Your task to perform on an android device: make emails show in primary in the gmail app Image 0: 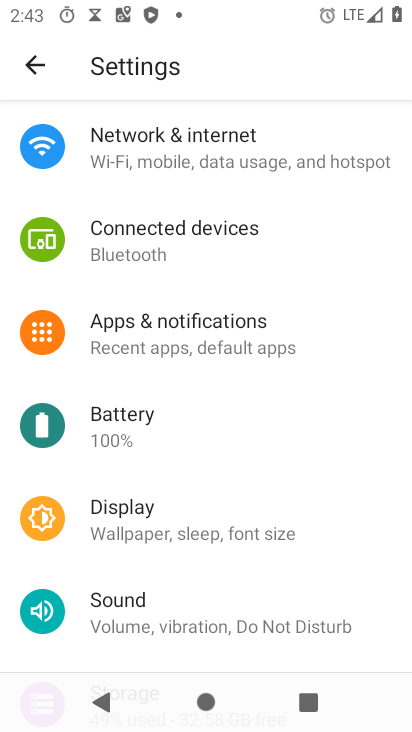
Step 0: press back button
Your task to perform on an android device: make emails show in primary in the gmail app Image 1: 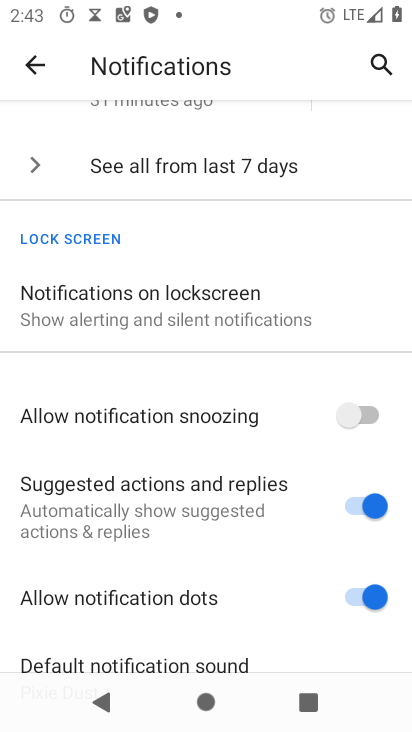
Step 1: press back button
Your task to perform on an android device: make emails show in primary in the gmail app Image 2: 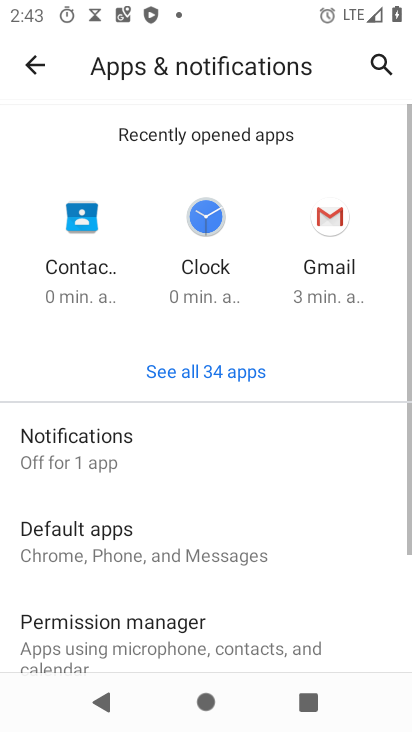
Step 2: press back button
Your task to perform on an android device: make emails show in primary in the gmail app Image 3: 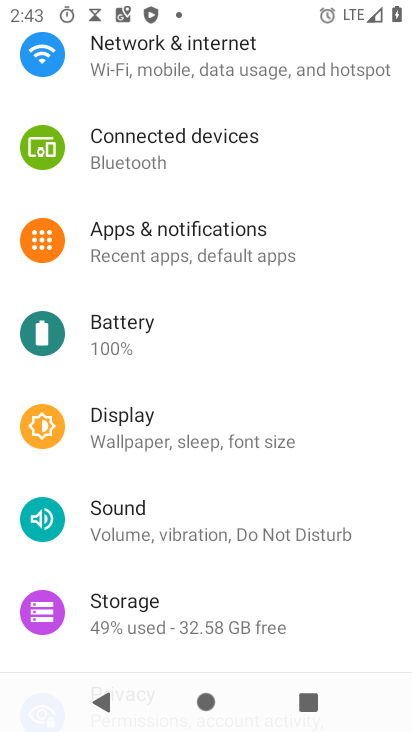
Step 3: press back button
Your task to perform on an android device: make emails show in primary in the gmail app Image 4: 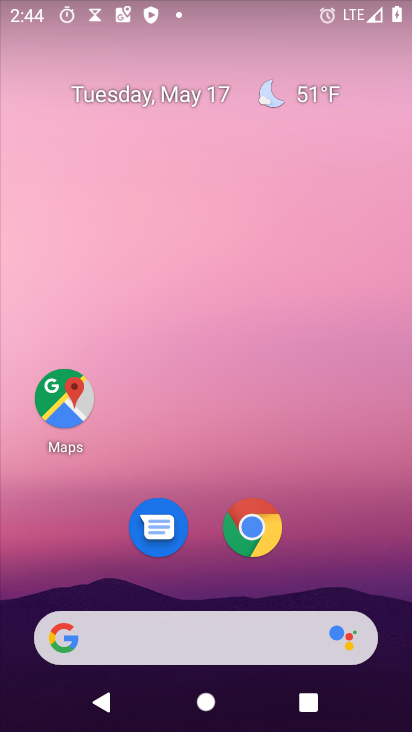
Step 4: drag from (346, 541) to (219, 125)
Your task to perform on an android device: make emails show in primary in the gmail app Image 5: 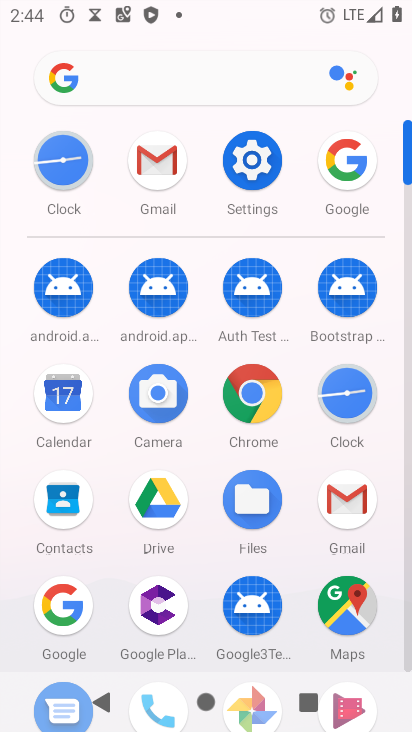
Step 5: click (156, 159)
Your task to perform on an android device: make emails show in primary in the gmail app Image 6: 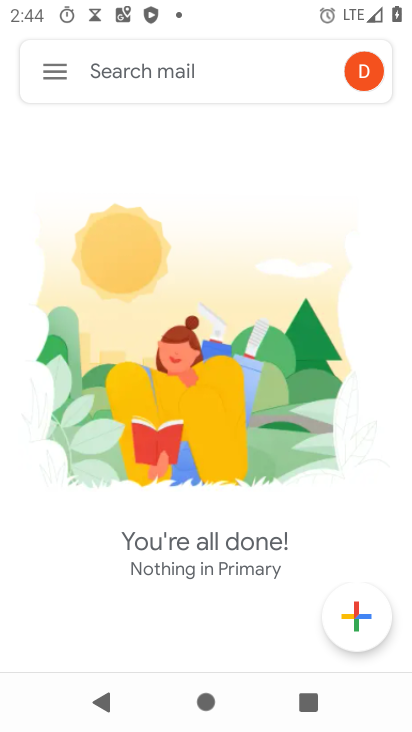
Step 6: click (61, 70)
Your task to perform on an android device: make emails show in primary in the gmail app Image 7: 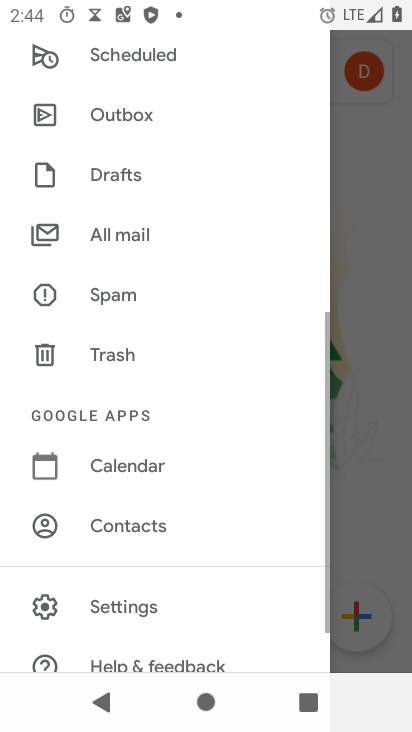
Step 7: drag from (135, 166) to (139, 376)
Your task to perform on an android device: make emails show in primary in the gmail app Image 8: 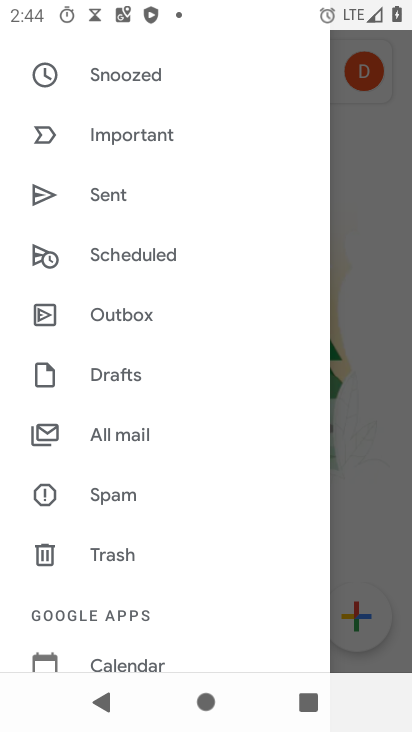
Step 8: drag from (159, 172) to (173, 414)
Your task to perform on an android device: make emails show in primary in the gmail app Image 9: 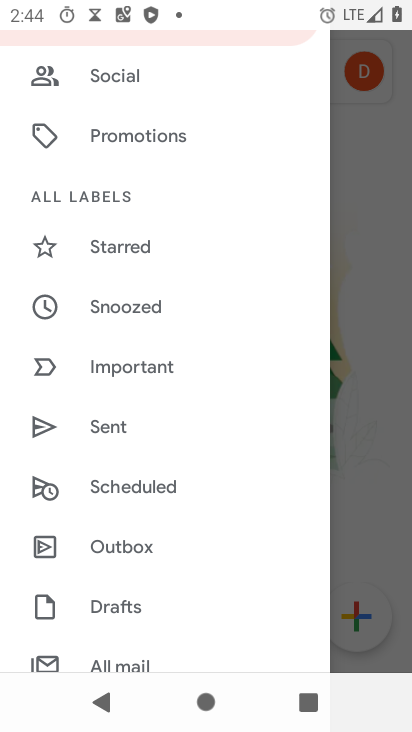
Step 9: drag from (176, 235) to (192, 396)
Your task to perform on an android device: make emails show in primary in the gmail app Image 10: 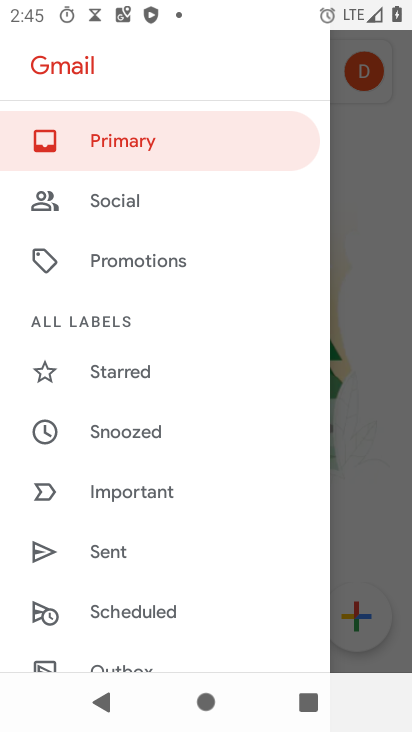
Step 10: click (134, 147)
Your task to perform on an android device: make emails show in primary in the gmail app Image 11: 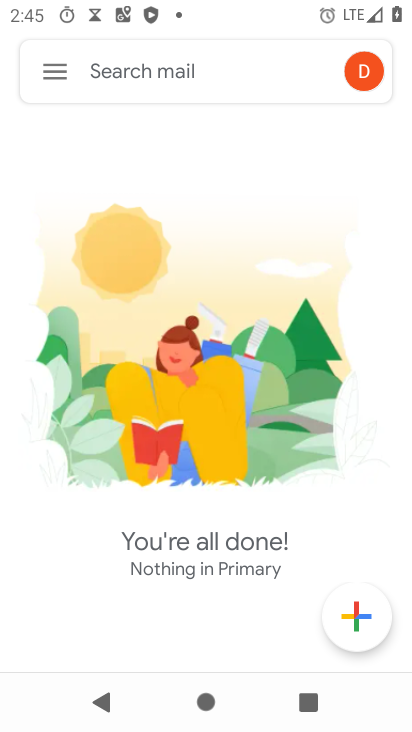
Step 11: task complete